Your task to perform on an android device: open chrome and create a bookmark for the current page Image 0: 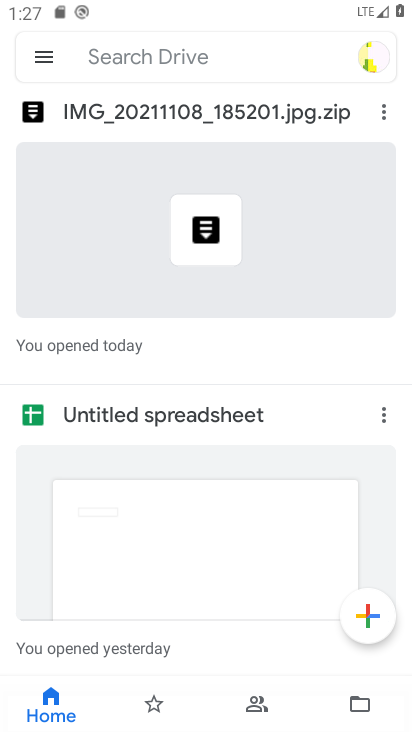
Step 0: drag from (289, 256) to (259, 599)
Your task to perform on an android device: open chrome and create a bookmark for the current page Image 1: 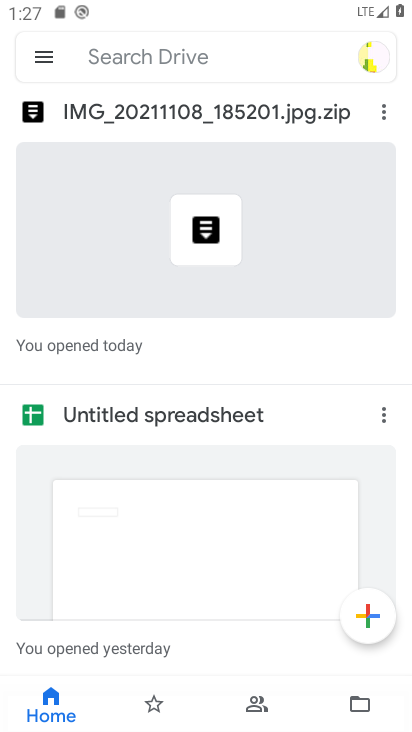
Step 1: drag from (217, 500) to (314, 215)
Your task to perform on an android device: open chrome and create a bookmark for the current page Image 2: 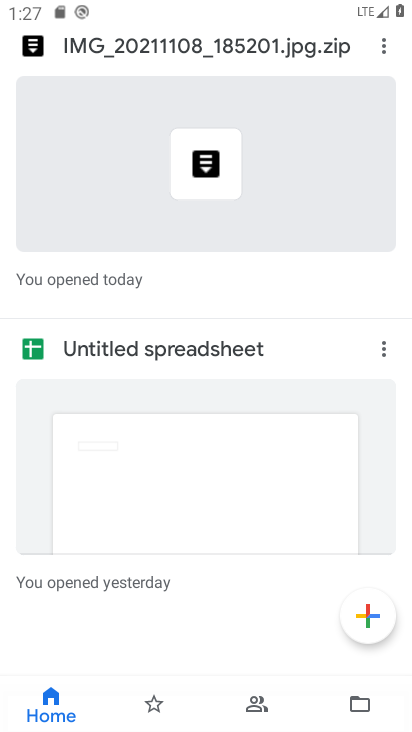
Step 2: press home button
Your task to perform on an android device: open chrome and create a bookmark for the current page Image 3: 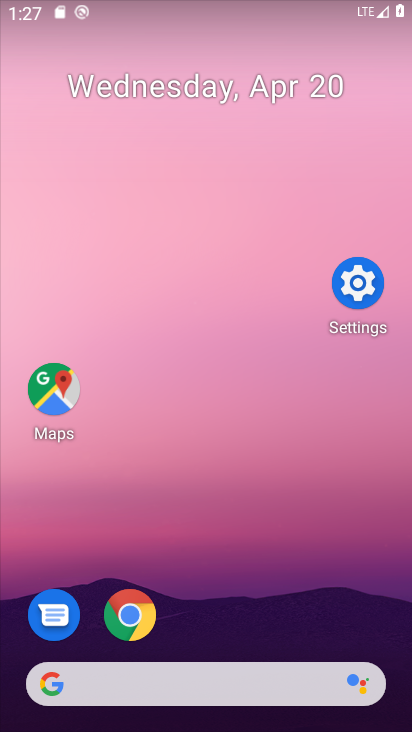
Step 3: drag from (207, 511) to (331, 177)
Your task to perform on an android device: open chrome and create a bookmark for the current page Image 4: 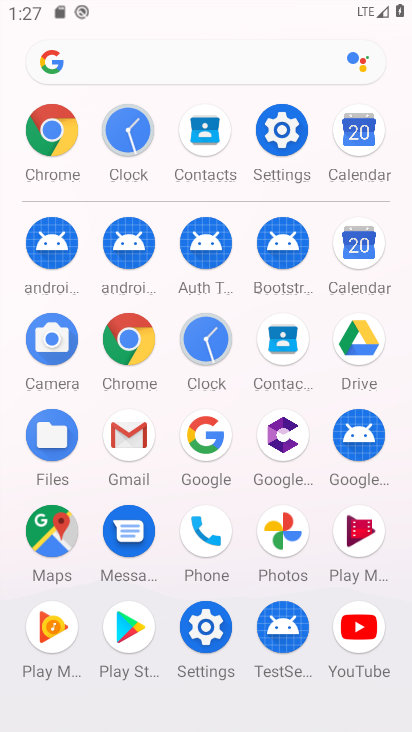
Step 4: click (117, 333)
Your task to perform on an android device: open chrome and create a bookmark for the current page Image 5: 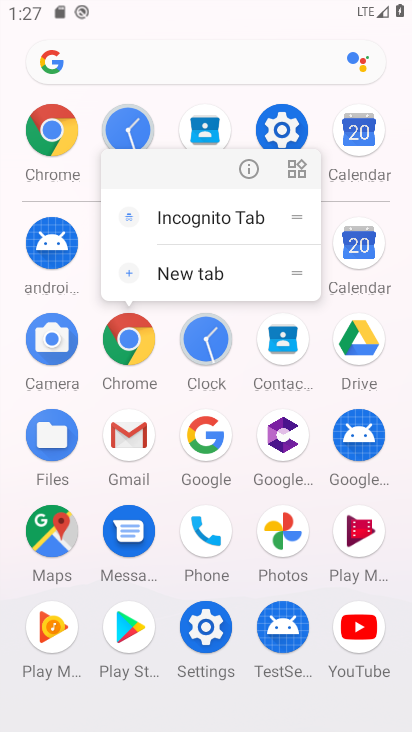
Step 5: click (251, 167)
Your task to perform on an android device: open chrome and create a bookmark for the current page Image 6: 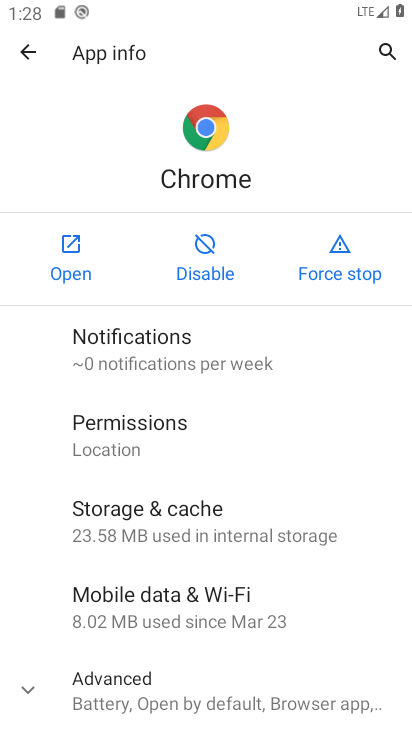
Step 6: click (58, 238)
Your task to perform on an android device: open chrome and create a bookmark for the current page Image 7: 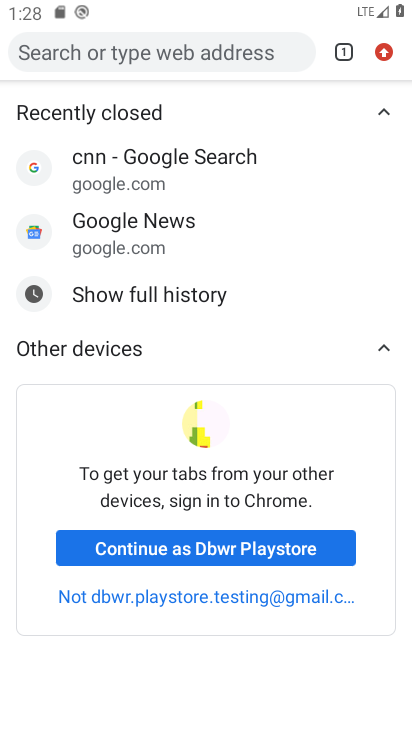
Step 7: drag from (379, 43) to (123, 381)
Your task to perform on an android device: open chrome and create a bookmark for the current page Image 8: 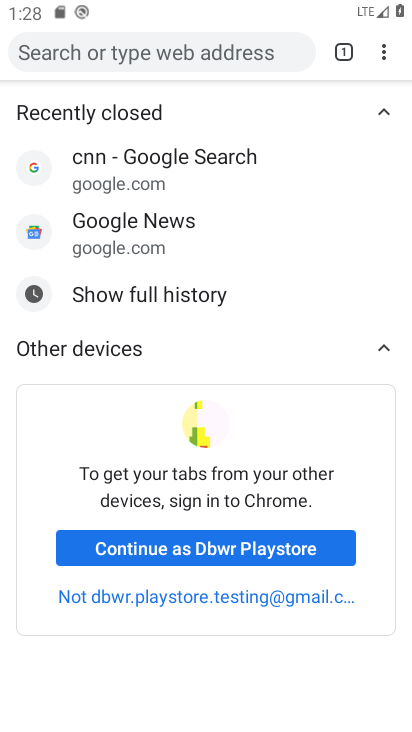
Step 8: drag from (94, 384) to (145, 53)
Your task to perform on an android device: open chrome and create a bookmark for the current page Image 9: 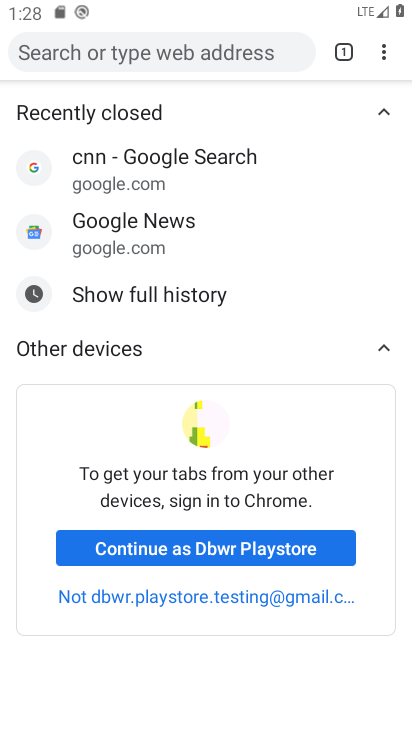
Step 9: drag from (148, 66) to (225, 417)
Your task to perform on an android device: open chrome and create a bookmark for the current page Image 10: 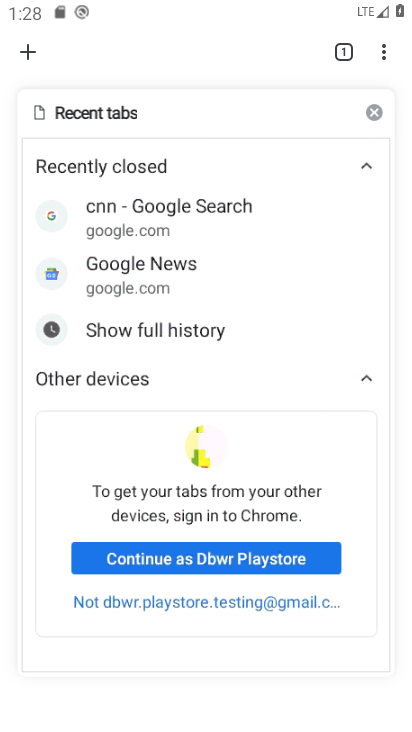
Step 10: click (231, 213)
Your task to perform on an android device: open chrome and create a bookmark for the current page Image 11: 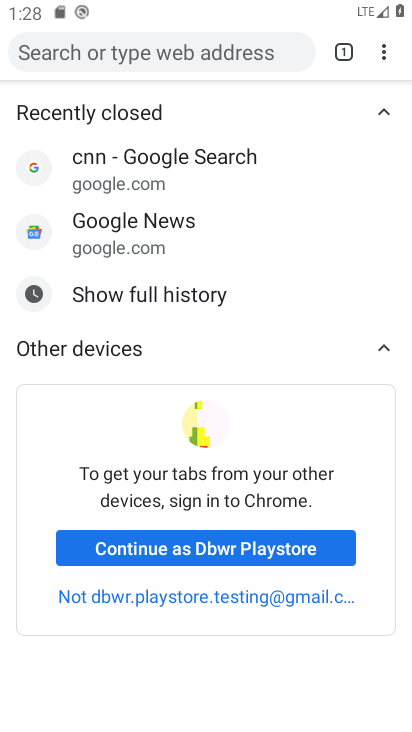
Step 11: drag from (389, 47) to (89, 238)
Your task to perform on an android device: open chrome and create a bookmark for the current page Image 12: 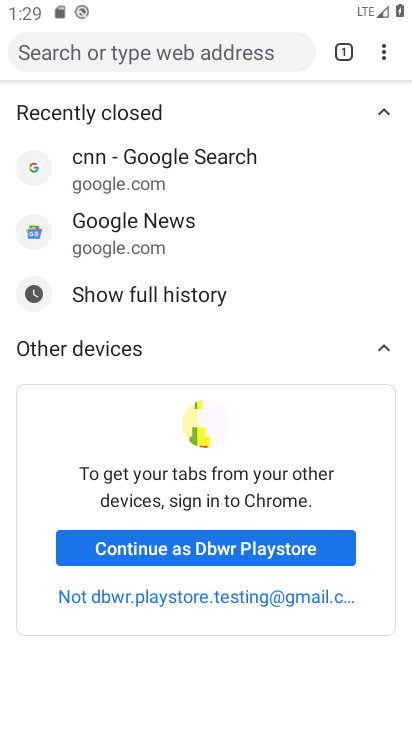
Step 12: click (190, 561)
Your task to perform on an android device: open chrome and create a bookmark for the current page Image 13: 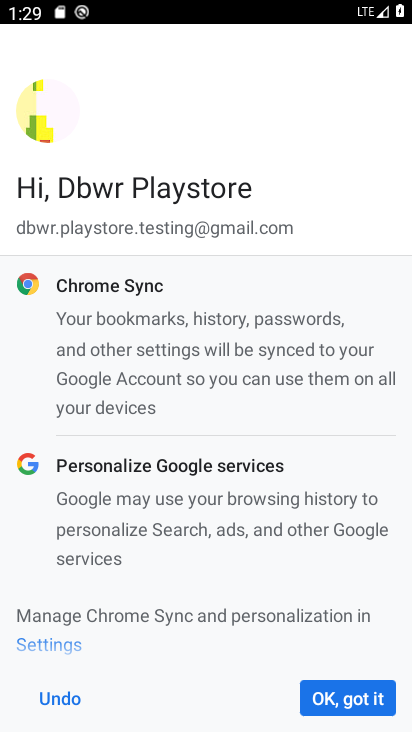
Step 13: click (61, 692)
Your task to perform on an android device: open chrome and create a bookmark for the current page Image 14: 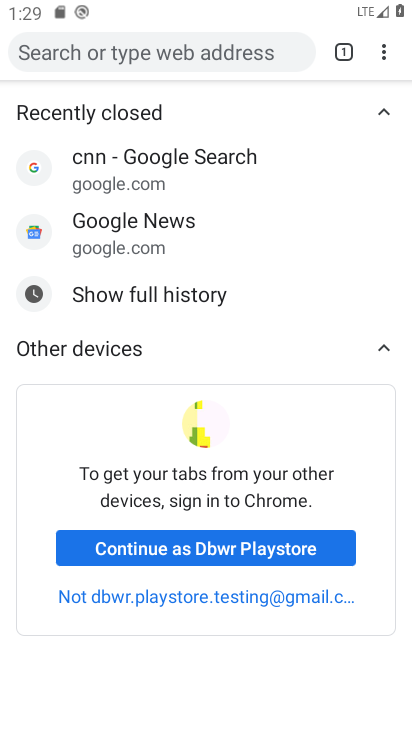
Step 14: click (145, 168)
Your task to perform on an android device: open chrome and create a bookmark for the current page Image 15: 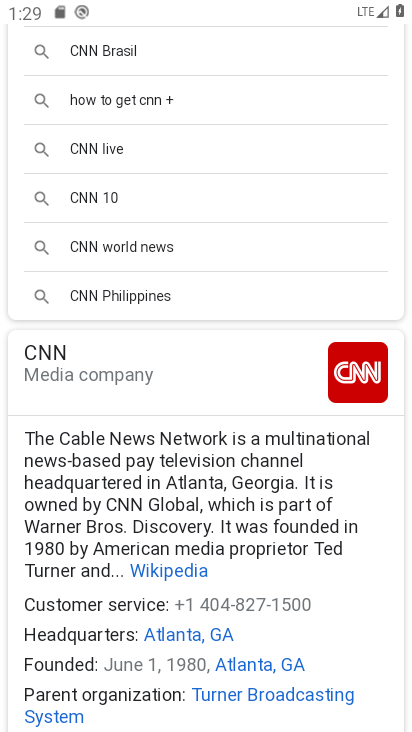
Step 15: click (59, 55)
Your task to perform on an android device: open chrome and create a bookmark for the current page Image 16: 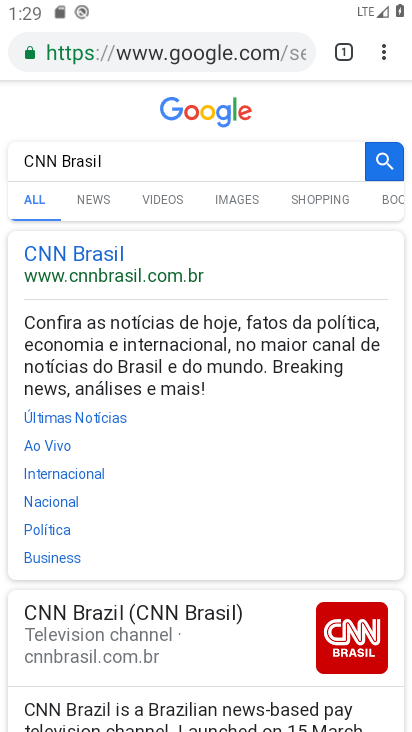
Step 16: task complete